Your task to perform on an android device: What's the weather today? Image 0: 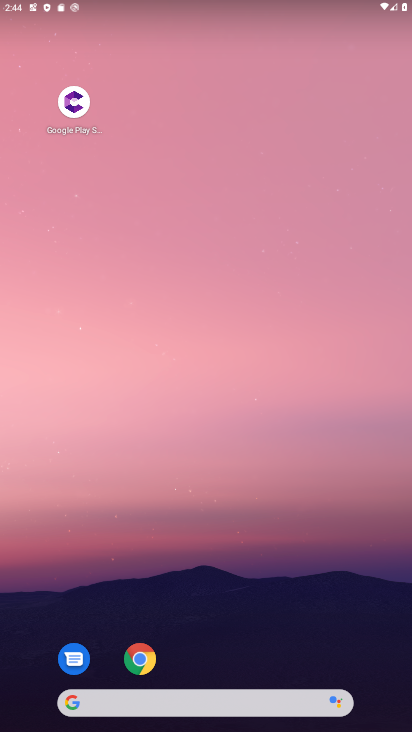
Step 0: drag from (183, 553) to (76, 180)
Your task to perform on an android device: What's the weather today? Image 1: 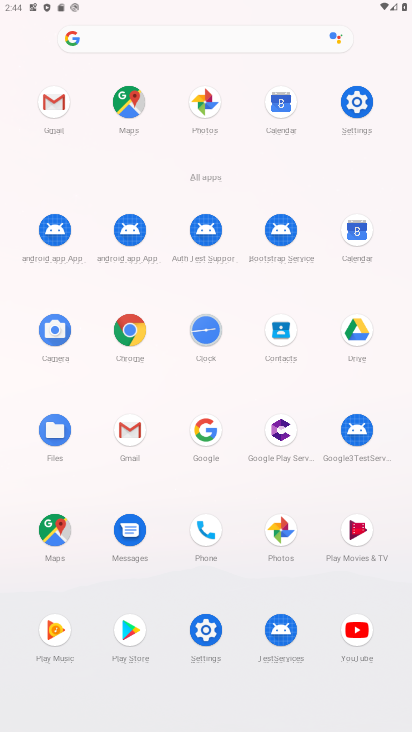
Step 1: click (121, 350)
Your task to perform on an android device: What's the weather today? Image 2: 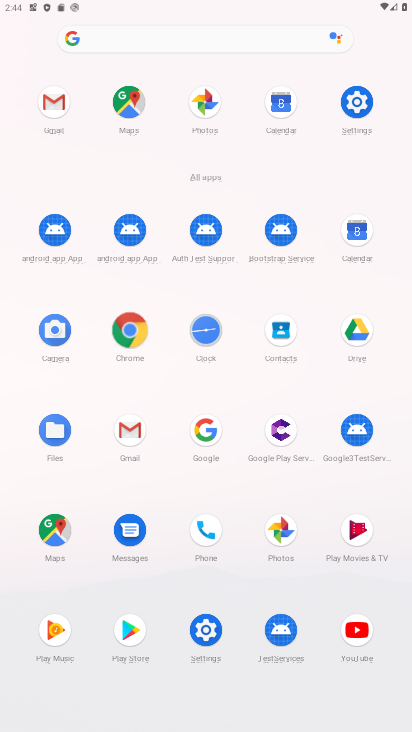
Step 2: click (124, 340)
Your task to perform on an android device: What's the weather today? Image 3: 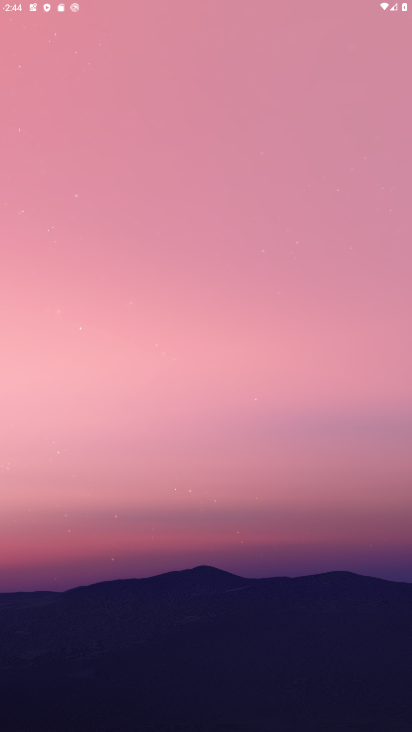
Step 3: click (131, 326)
Your task to perform on an android device: What's the weather today? Image 4: 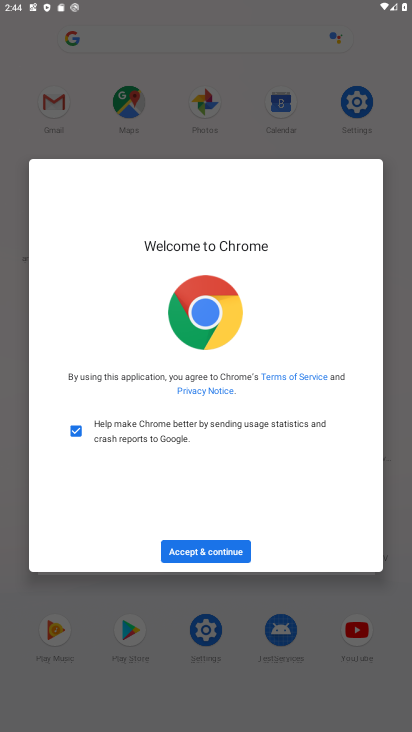
Step 4: click (208, 547)
Your task to perform on an android device: What's the weather today? Image 5: 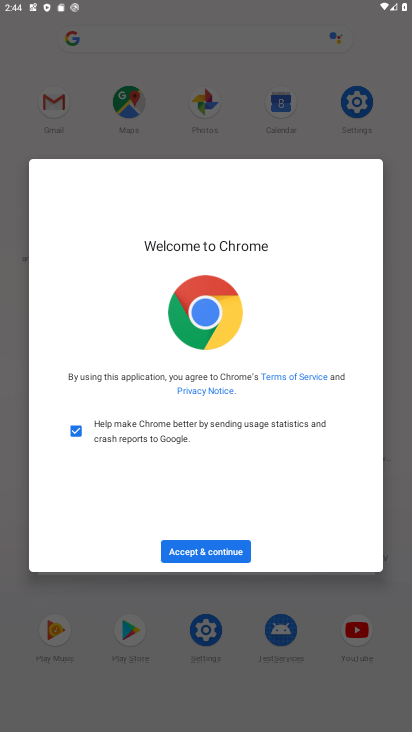
Step 5: click (209, 547)
Your task to perform on an android device: What's the weather today? Image 6: 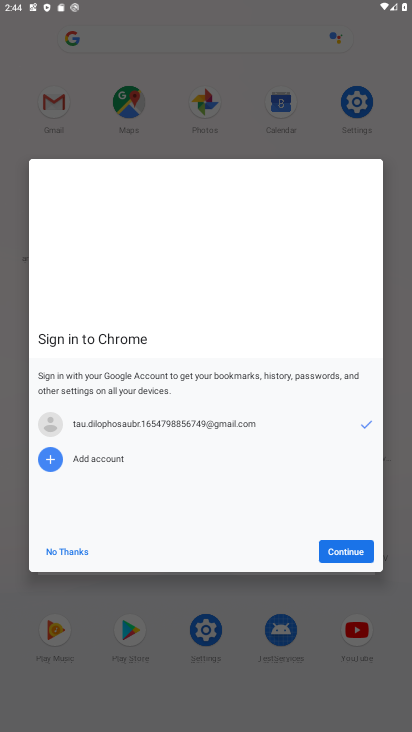
Step 6: click (341, 552)
Your task to perform on an android device: What's the weather today? Image 7: 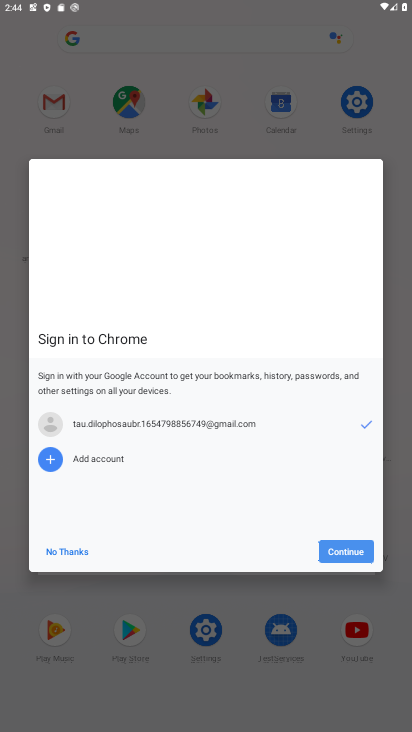
Step 7: click (341, 552)
Your task to perform on an android device: What's the weather today? Image 8: 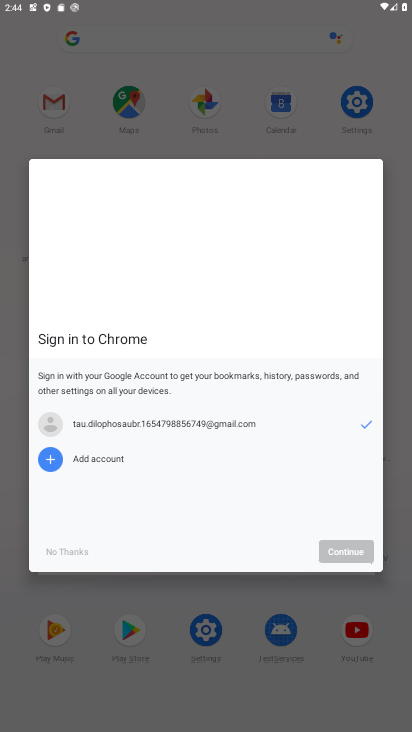
Step 8: click (341, 552)
Your task to perform on an android device: What's the weather today? Image 9: 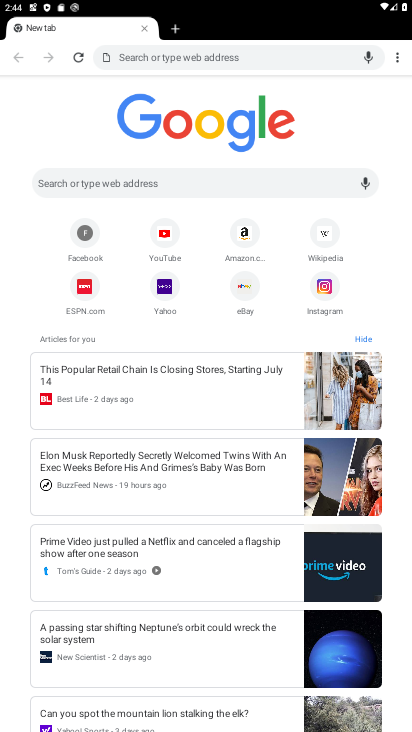
Step 9: click (72, 174)
Your task to perform on an android device: What's the weather today? Image 10: 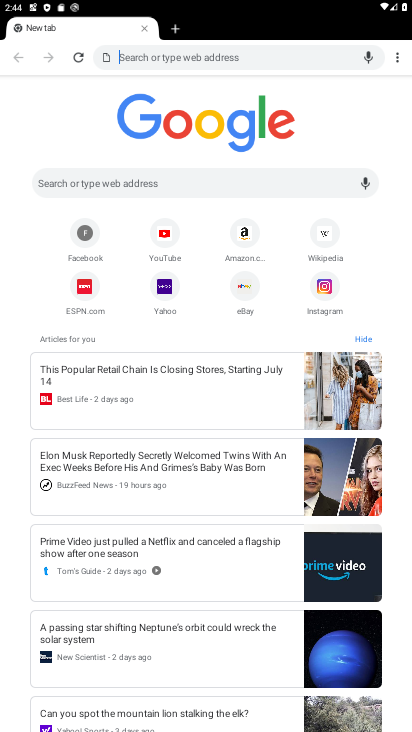
Step 10: click (74, 175)
Your task to perform on an android device: What's the weather today? Image 11: 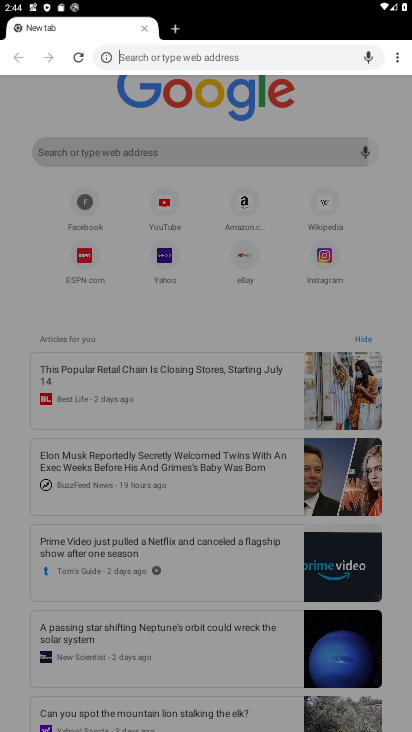
Step 11: click (81, 176)
Your task to perform on an android device: What's the weather today? Image 12: 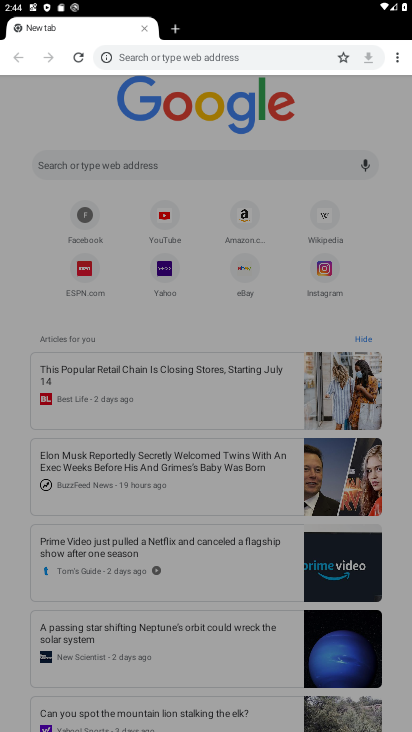
Step 12: click (88, 176)
Your task to perform on an android device: What's the weather today? Image 13: 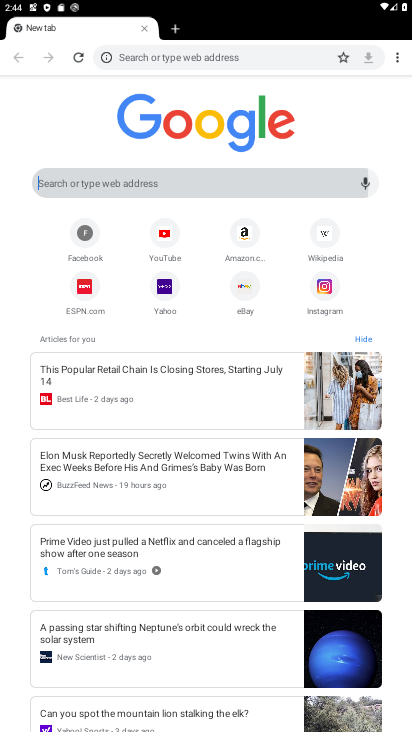
Step 13: click (88, 176)
Your task to perform on an android device: What's the weather today? Image 14: 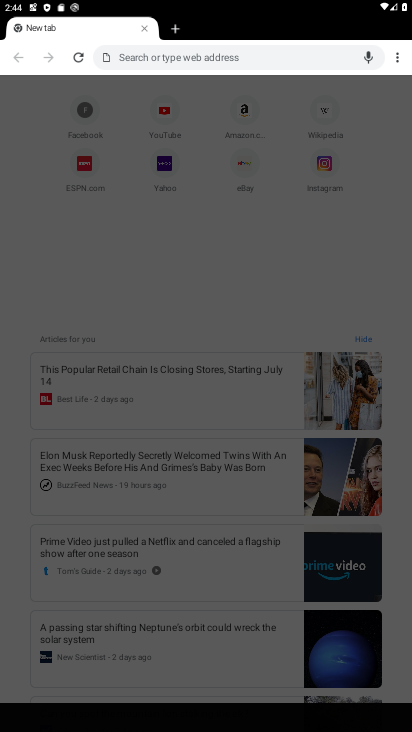
Step 14: click (88, 176)
Your task to perform on an android device: What's the weather today? Image 15: 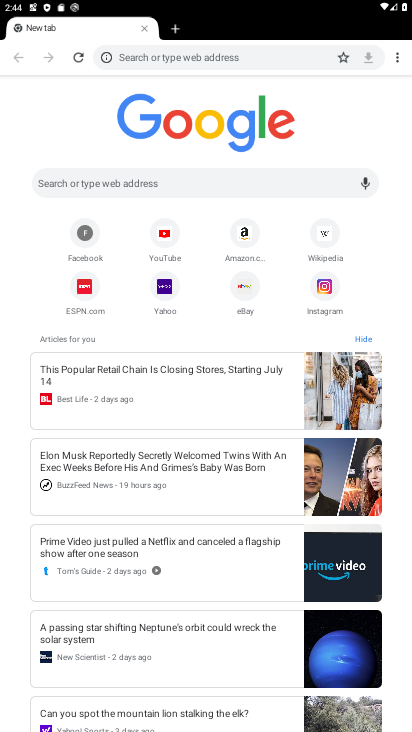
Step 15: click (97, 166)
Your task to perform on an android device: What's the weather today? Image 16: 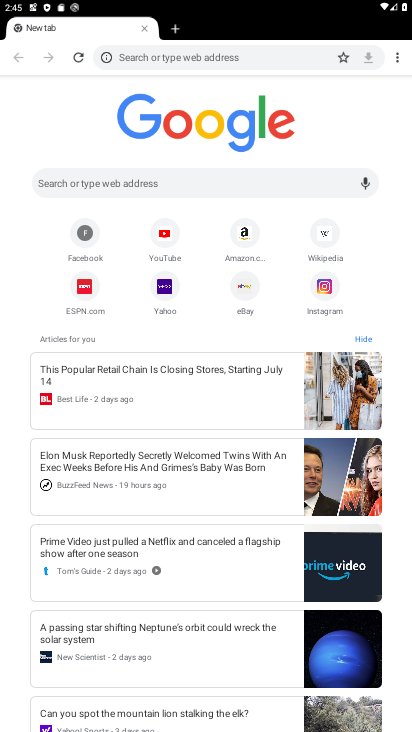
Step 16: type "weather today"
Your task to perform on an android device: What's the weather today? Image 17: 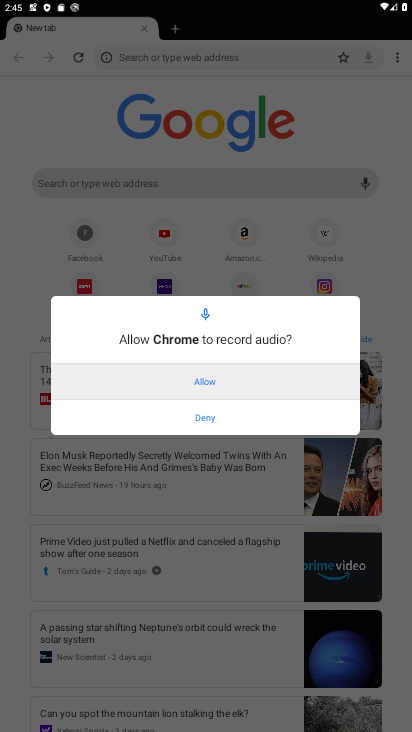
Step 17: click (205, 387)
Your task to perform on an android device: What's the weather today? Image 18: 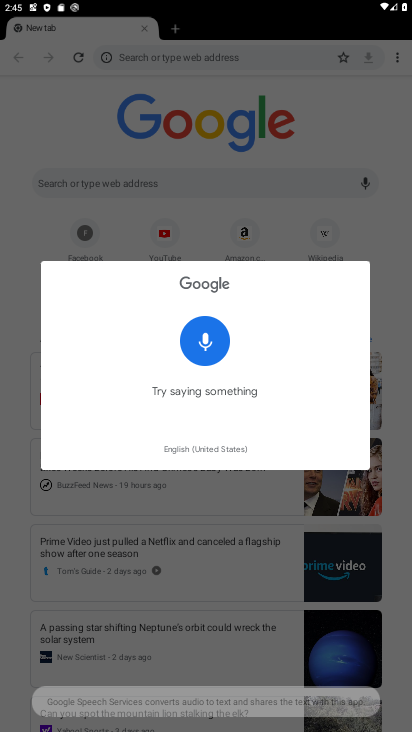
Step 18: click (211, 383)
Your task to perform on an android device: What's the weather today? Image 19: 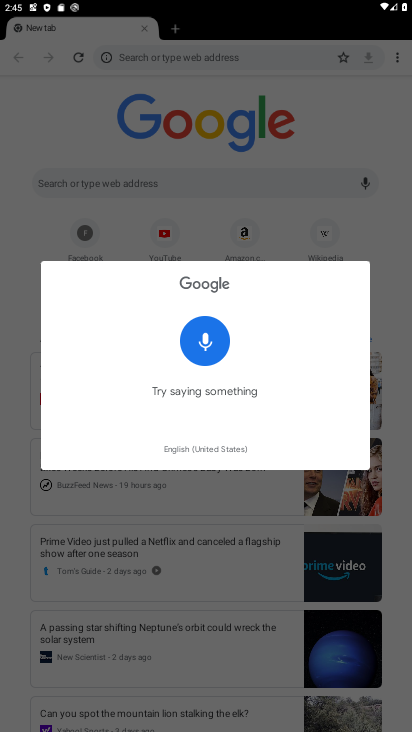
Step 19: click (207, 378)
Your task to perform on an android device: What's the weather today? Image 20: 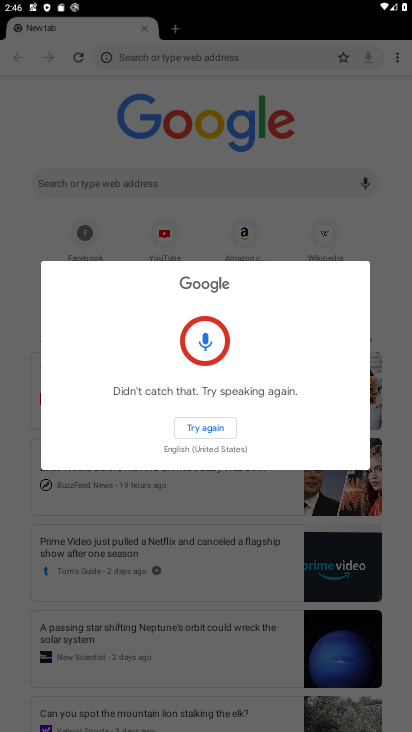
Step 20: click (212, 413)
Your task to perform on an android device: What's the weather today? Image 21: 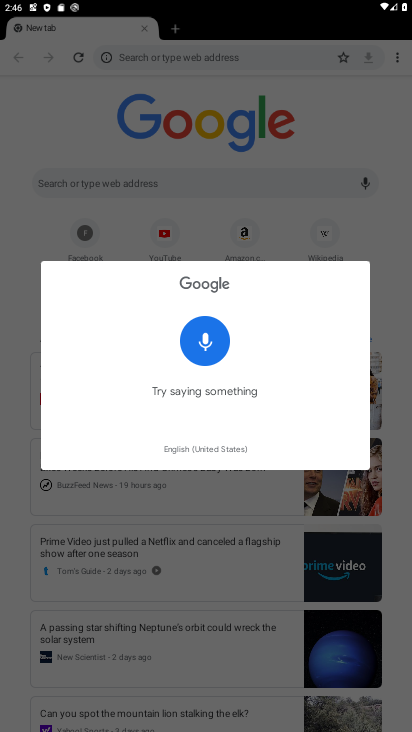
Step 21: click (222, 414)
Your task to perform on an android device: What's the weather today? Image 22: 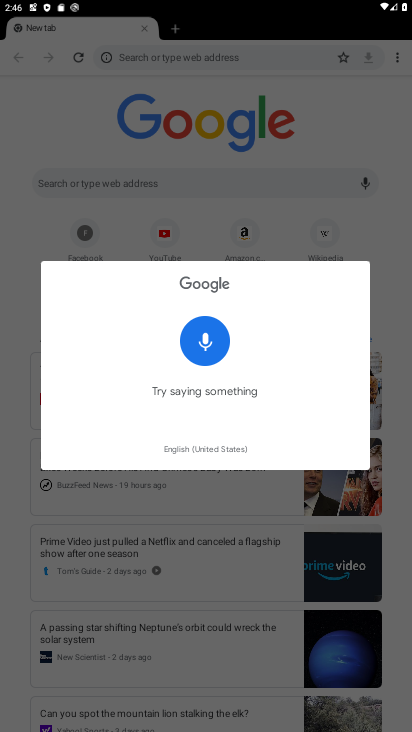
Step 22: click (233, 443)
Your task to perform on an android device: What's the weather today? Image 23: 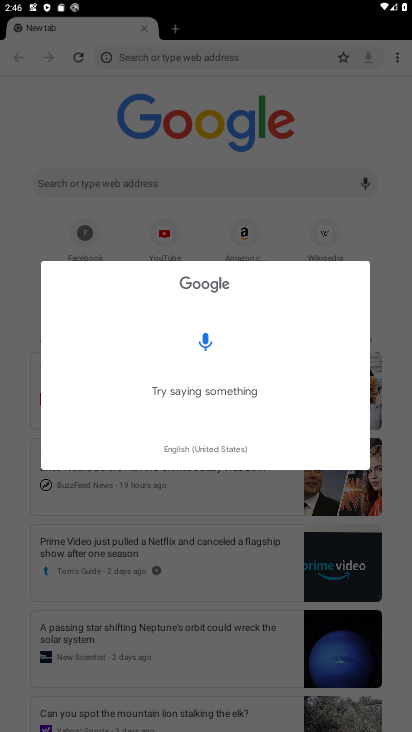
Step 23: task complete